Your task to perform on an android device: check data usage Image 0: 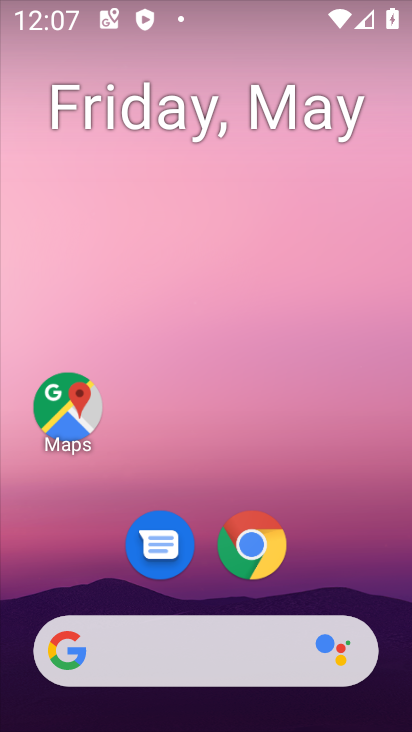
Step 0: drag from (275, 562) to (260, 237)
Your task to perform on an android device: check data usage Image 1: 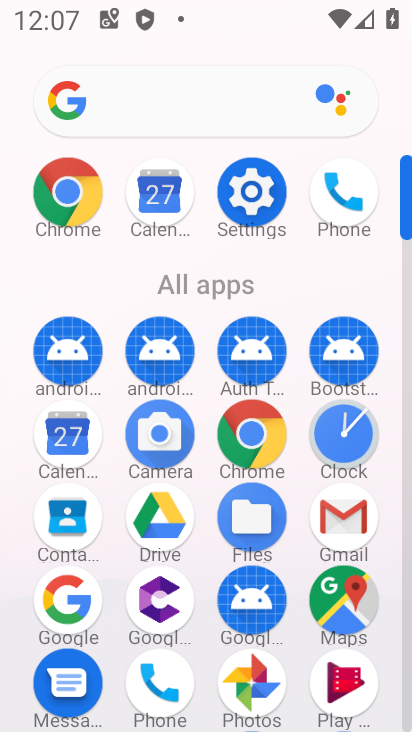
Step 1: click (238, 184)
Your task to perform on an android device: check data usage Image 2: 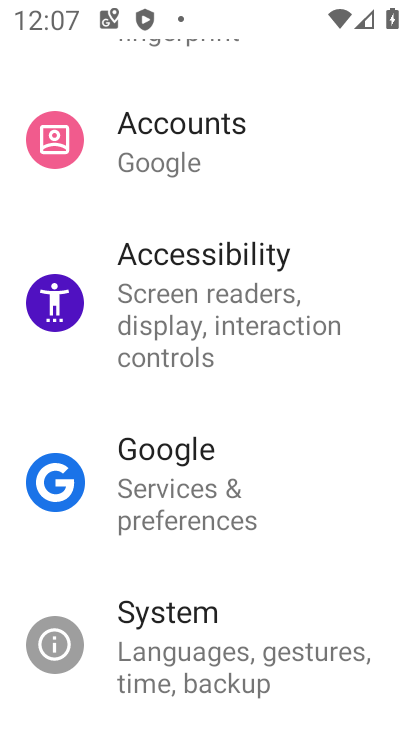
Step 2: drag from (192, 165) to (180, 628)
Your task to perform on an android device: check data usage Image 3: 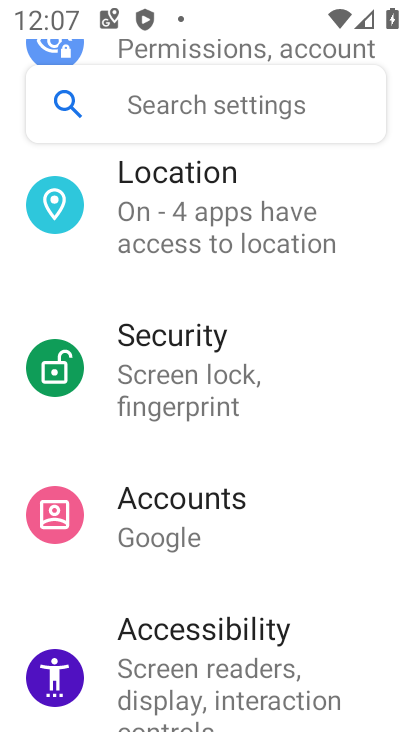
Step 3: drag from (308, 194) to (280, 618)
Your task to perform on an android device: check data usage Image 4: 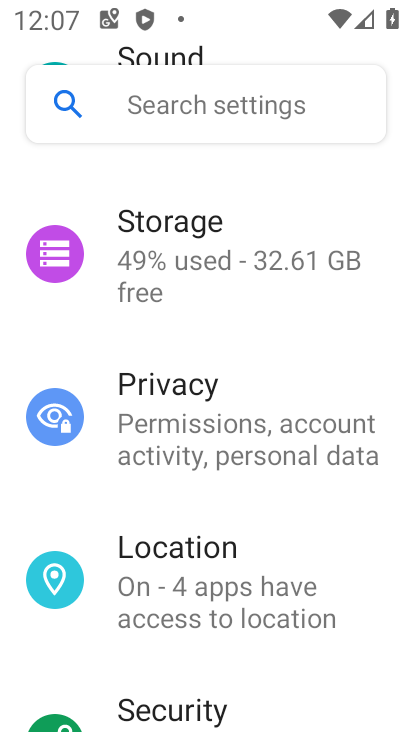
Step 4: drag from (207, 239) to (224, 694)
Your task to perform on an android device: check data usage Image 5: 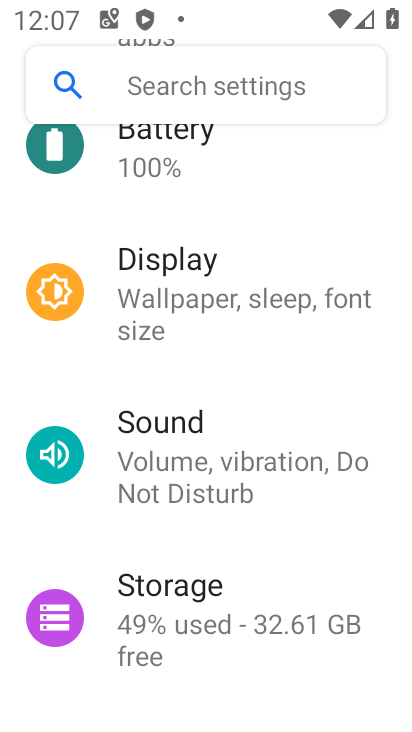
Step 5: drag from (189, 138) to (231, 680)
Your task to perform on an android device: check data usage Image 6: 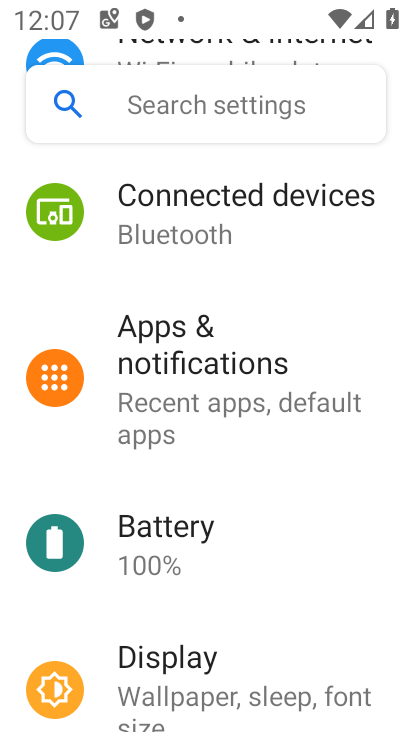
Step 6: drag from (193, 183) to (209, 658)
Your task to perform on an android device: check data usage Image 7: 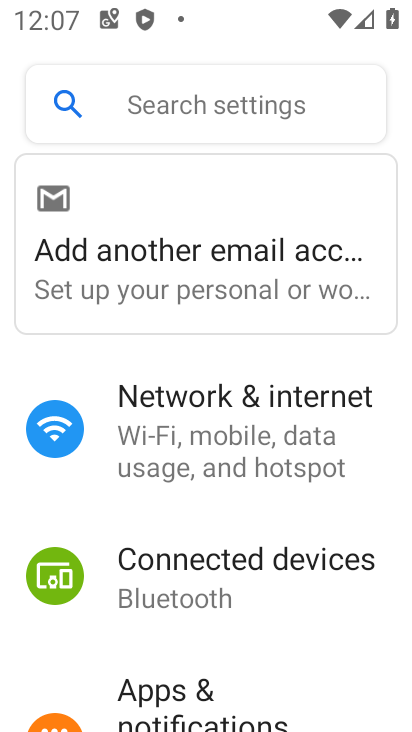
Step 7: click (234, 412)
Your task to perform on an android device: check data usage Image 8: 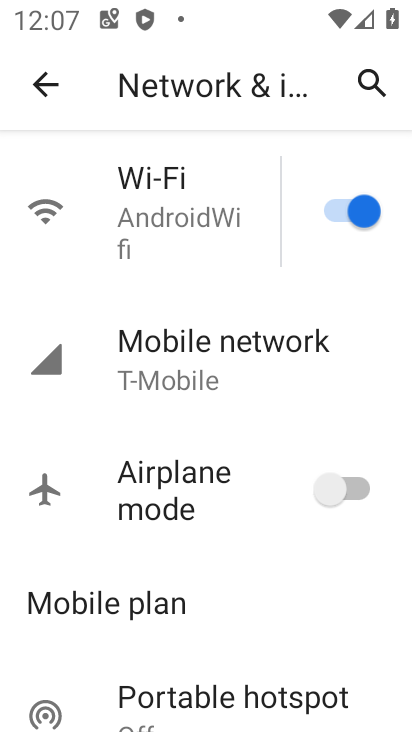
Step 8: click (224, 331)
Your task to perform on an android device: check data usage Image 9: 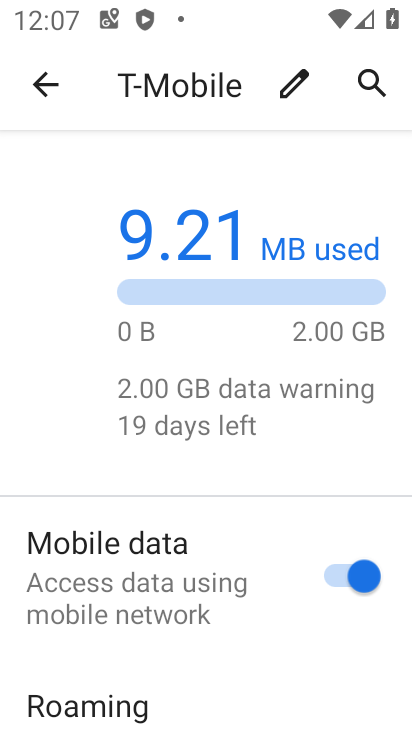
Step 9: task complete